Your task to perform on an android device: When is my next meeting? Image 0: 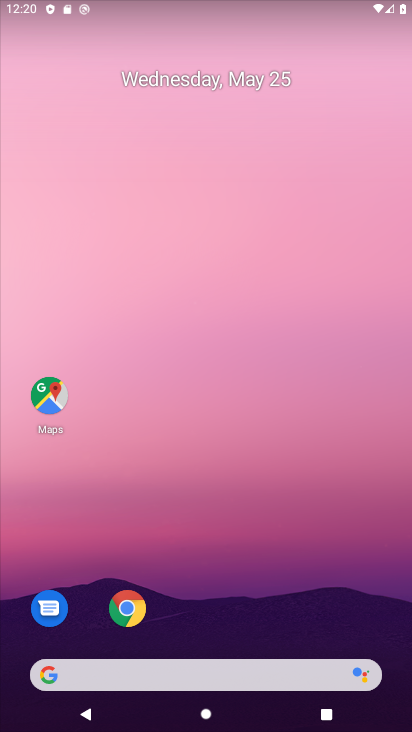
Step 0: drag from (150, 714) to (211, 3)
Your task to perform on an android device: When is my next meeting? Image 1: 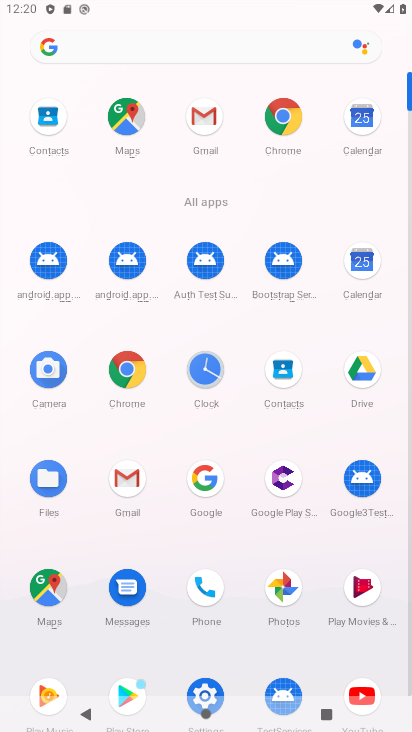
Step 1: click (371, 272)
Your task to perform on an android device: When is my next meeting? Image 2: 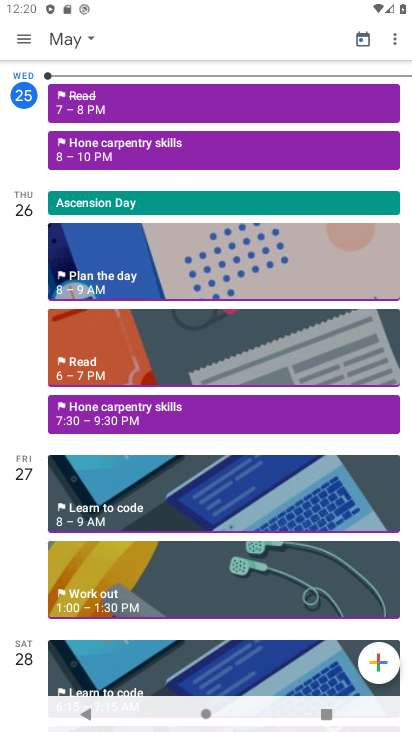
Step 2: task complete